Your task to perform on an android device: What's the weather going to be tomorrow? Image 0: 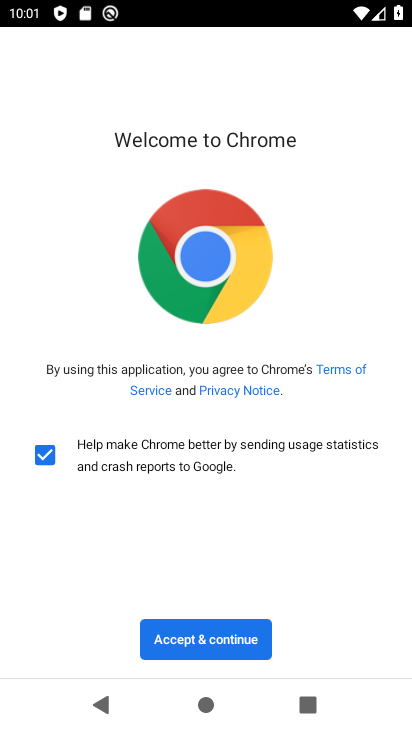
Step 0: click (235, 632)
Your task to perform on an android device: What's the weather going to be tomorrow? Image 1: 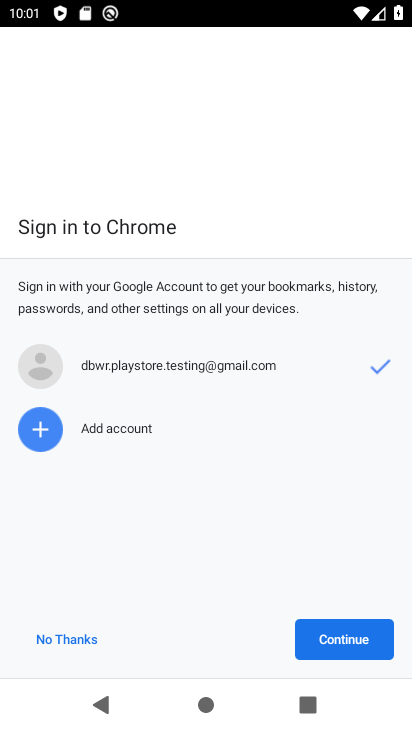
Step 1: click (372, 632)
Your task to perform on an android device: What's the weather going to be tomorrow? Image 2: 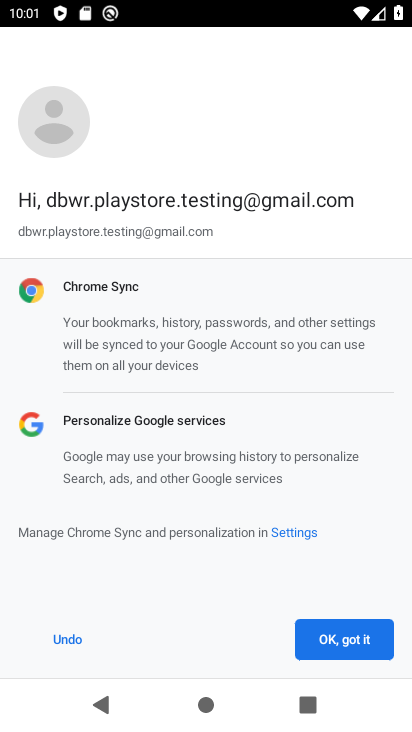
Step 2: click (368, 633)
Your task to perform on an android device: What's the weather going to be tomorrow? Image 3: 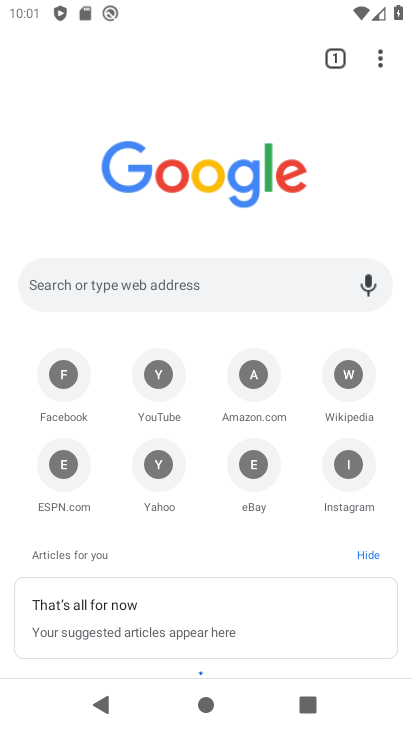
Step 3: click (238, 296)
Your task to perform on an android device: What's the weather going to be tomorrow? Image 4: 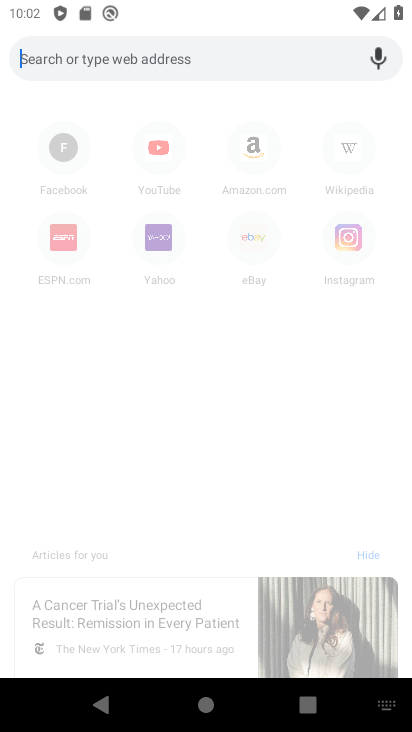
Step 4: type "weather tomorrow"
Your task to perform on an android device: What's the weather going to be tomorrow? Image 5: 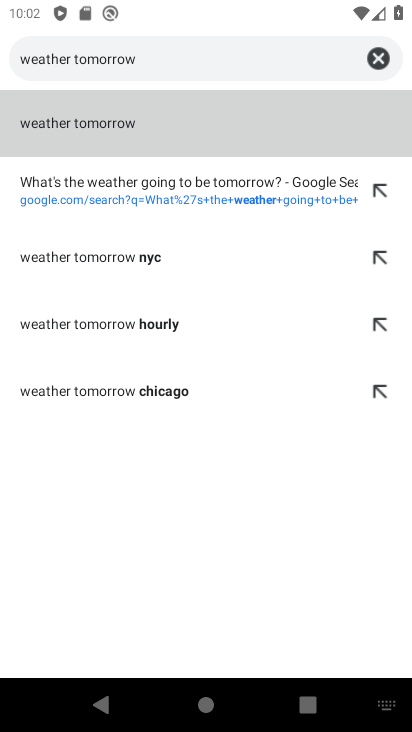
Step 5: click (87, 116)
Your task to perform on an android device: What's the weather going to be tomorrow? Image 6: 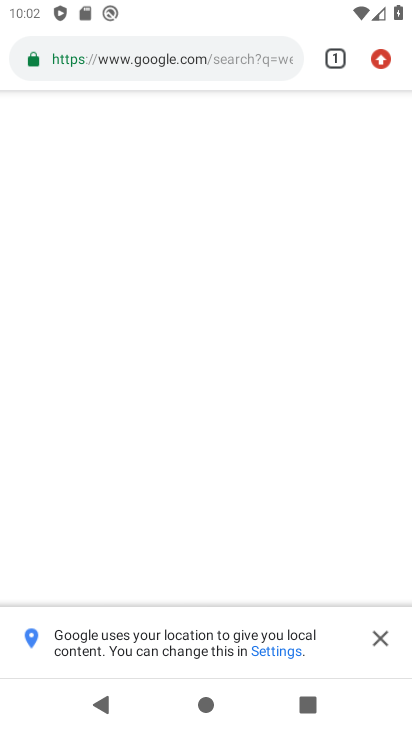
Step 6: click (375, 636)
Your task to perform on an android device: What's the weather going to be tomorrow? Image 7: 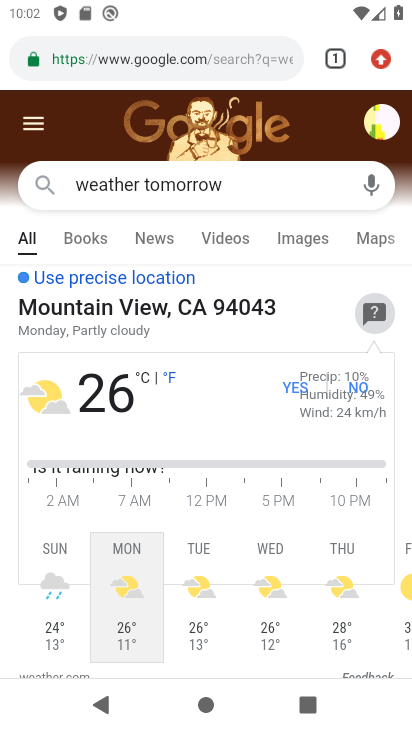
Step 7: task complete